Your task to perform on an android device: Open Chrome and go to the settings page Image 0: 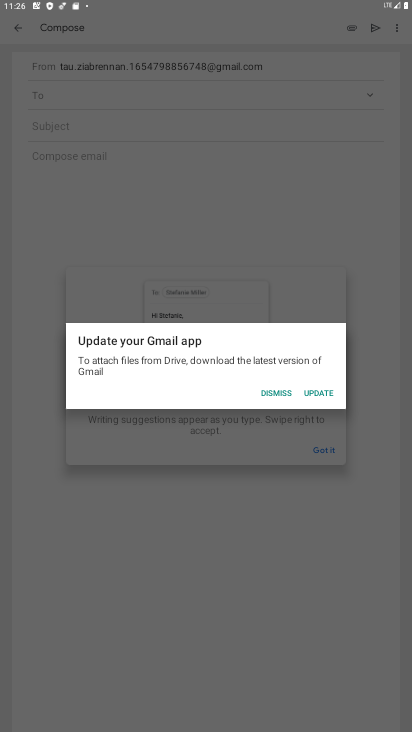
Step 0: press home button
Your task to perform on an android device: Open Chrome and go to the settings page Image 1: 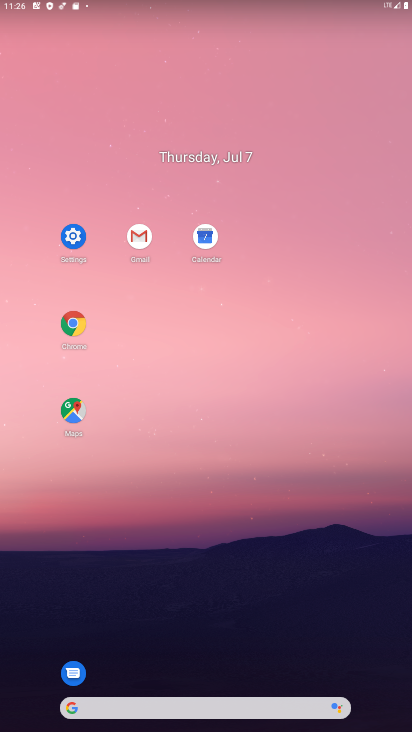
Step 1: click (66, 328)
Your task to perform on an android device: Open Chrome and go to the settings page Image 2: 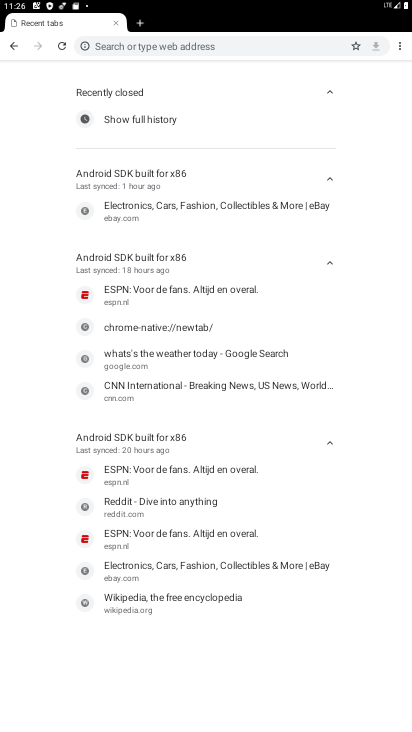
Step 2: click (15, 50)
Your task to perform on an android device: Open Chrome and go to the settings page Image 3: 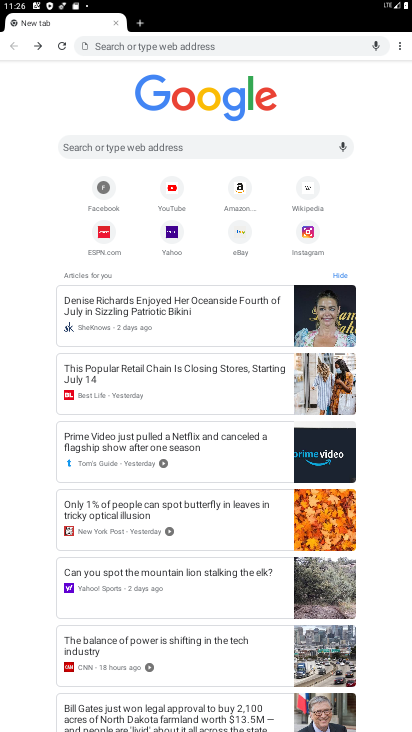
Step 3: click (394, 49)
Your task to perform on an android device: Open Chrome and go to the settings page Image 4: 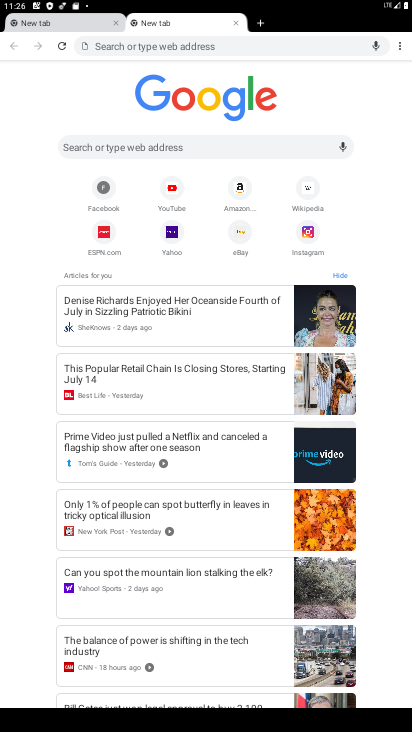
Step 4: click (399, 47)
Your task to perform on an android device: Open Chrome and go to the settings page Image 5: 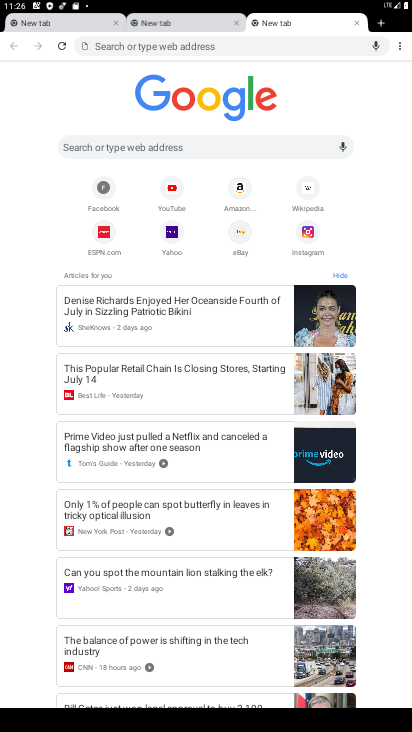
Step 5: click (399, 46)
Your task to perform on an android device: Open Chrome and go to the settings page Image 6: 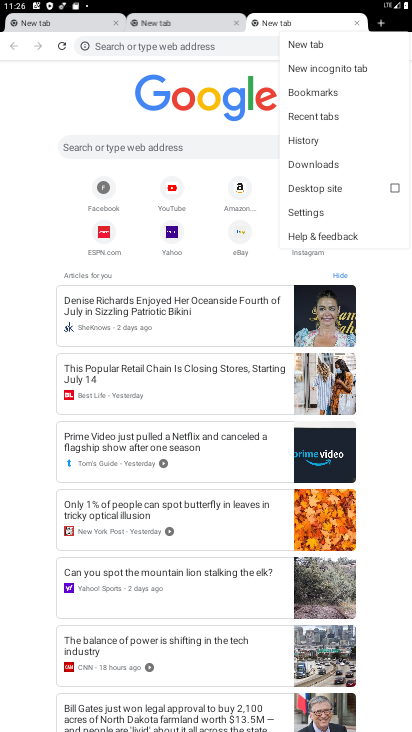
Step 6: click (315, 207)
Your task to perform on an android device: Open Chrome and go to the settings page Image 7: 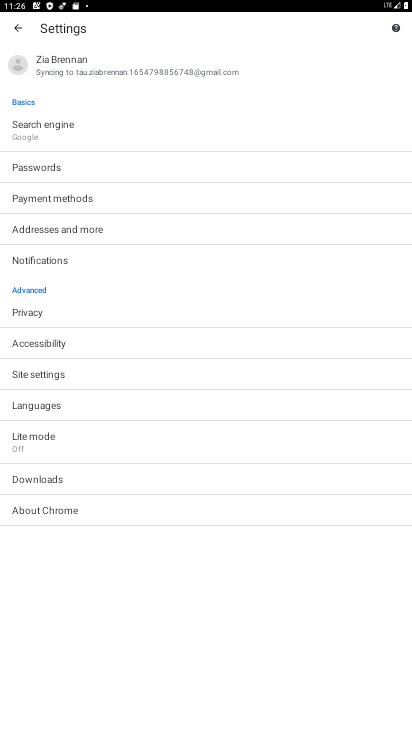
Step 7: task complete